Your task to perform on an android device: Show me popular games on the Play Store Image 0: 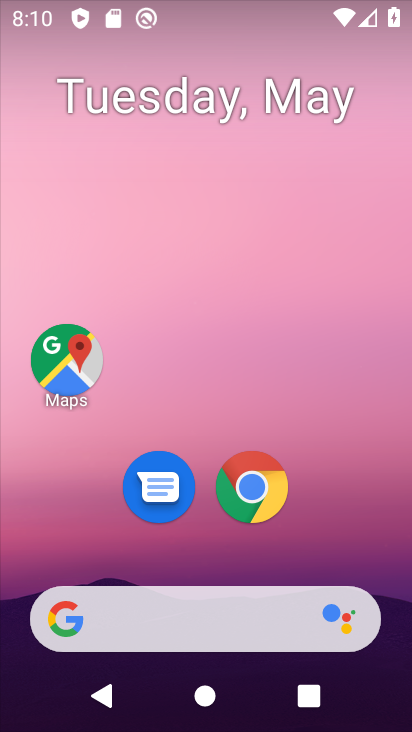
Step 0: drag from (239, 725) to (228, 130)
Your task to perform on an android device: Show me popular games on the Play Store Image 1: 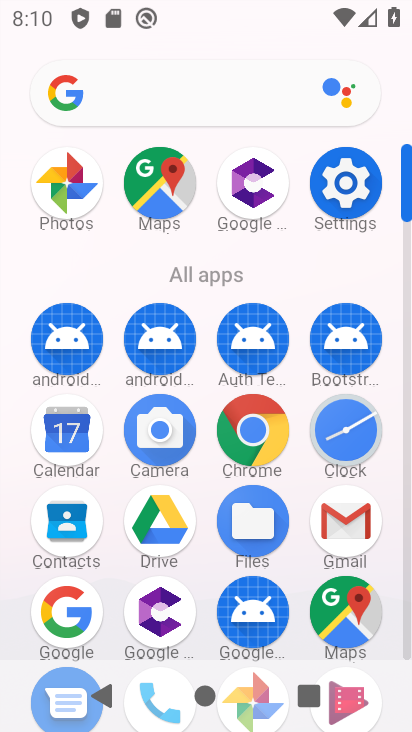
Step 1: drag from (224, 603) to (223, 188)
Your task to perform on an android device: Show me popular games on the Play Store Image 2: 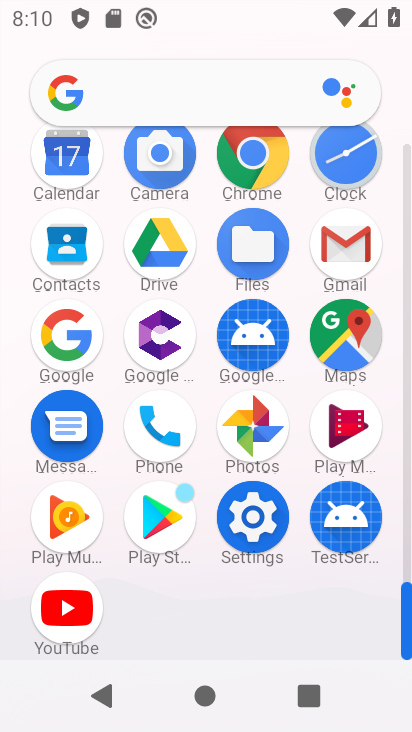
Step 2: click (157, 515)
Your task to perform on an android device: Show me popular games on the Play Store Image 3: 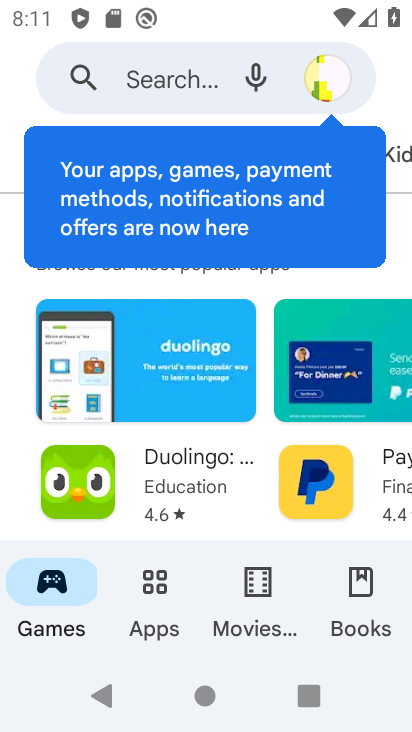
Step 3: drag from (237, 519) to (252, 217)
Your task to perform on an android device: Show me popular games on the Play Store Image 4: 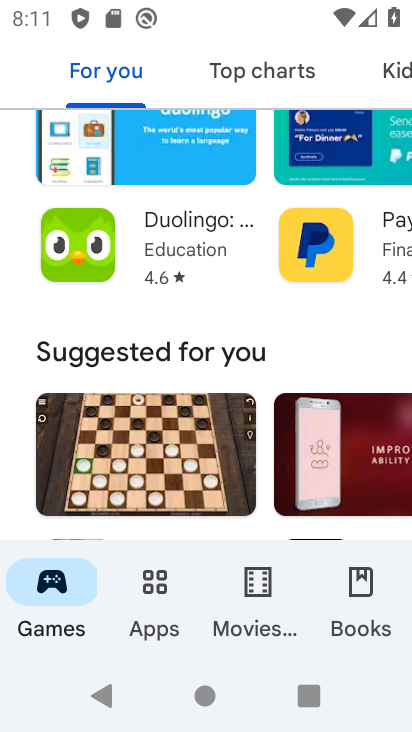
Step 4: drag from (249, 207) to (245, 494)
Your task to perform on an android device: Show me popular games on the Play Store Image 5: 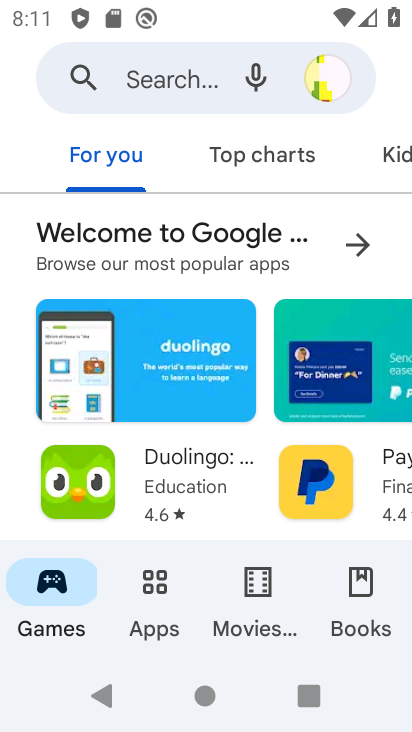
Step 5: drag from (258, 499) to (257, 226)
Your task to perform on an android device: Show me popular games on the Play Store Image 6: 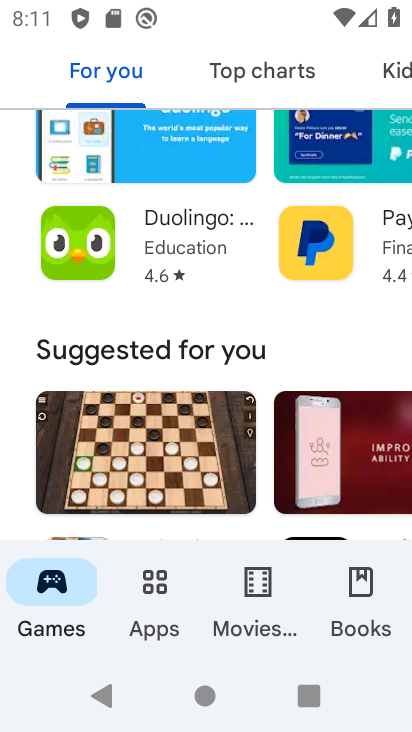
Step 6: drag from (260, 513) to (278, 232)
Your task to perform on an android device: Show me popular games on the Play Store Image 7: 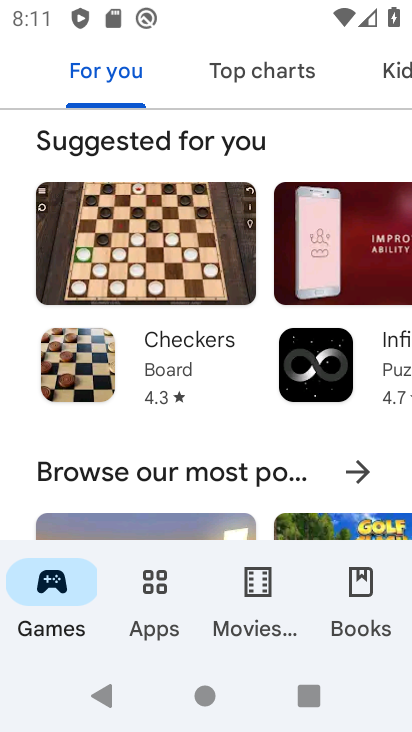
Step 7: click (279, 468)
Your task to perform on an android device: Show me popular games on the Play Store Image 8: 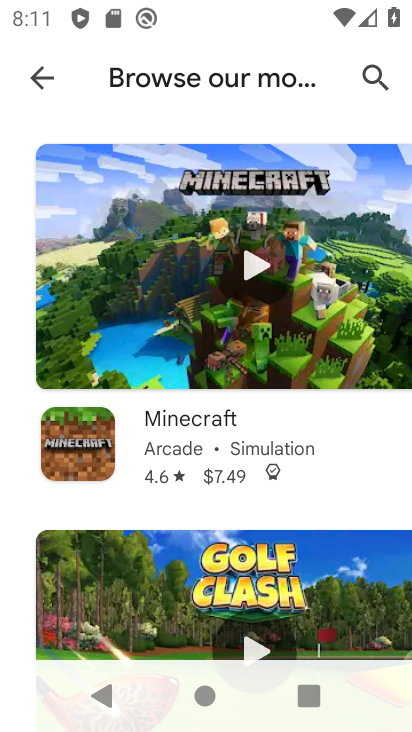
Step 8: task complete